Your task to perform on an android device: toggle translation in the chrome app Image 0: 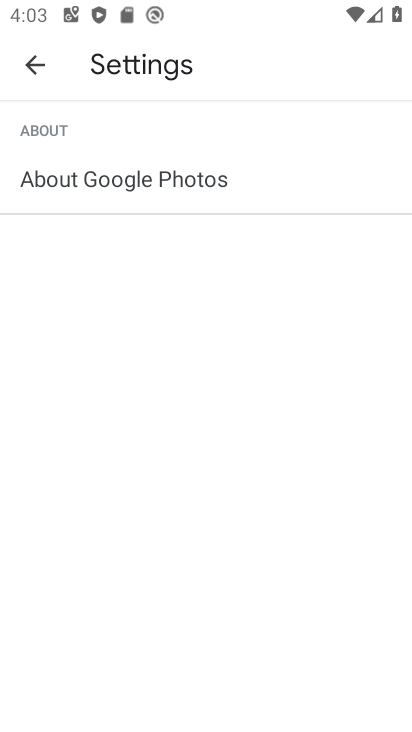
Step 0: press home button
Your task to perform on an android device: toggle translation in the chrome app Image 1: 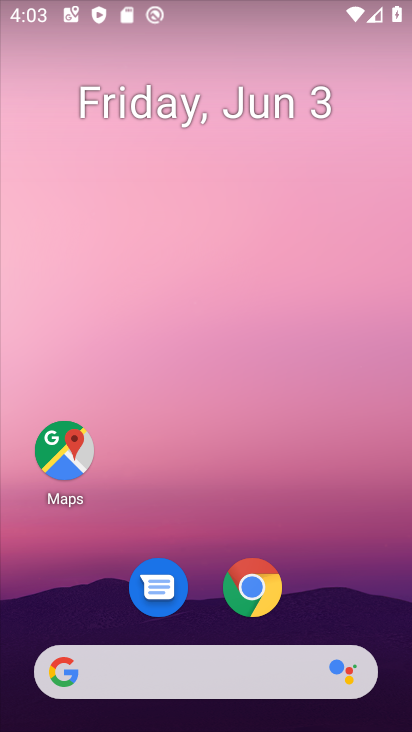
Step 1: click (250, 573)
Your task to perform on an android device: toggle translation in the chrome app Image 2: 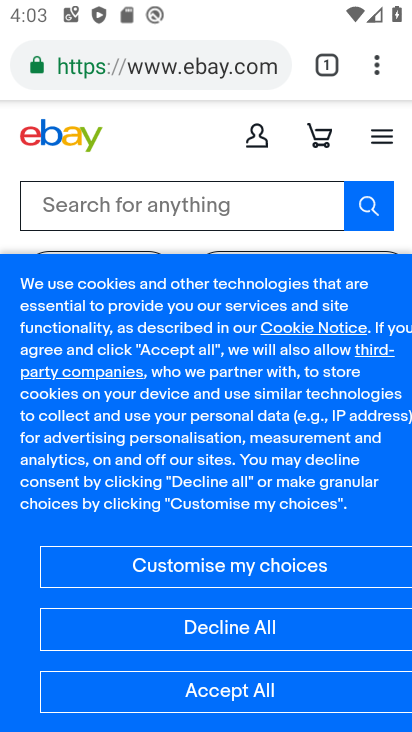
Step 2: click (385, 75)
Your task to perform on an android device: toggle translation in the chrome app Image 3: 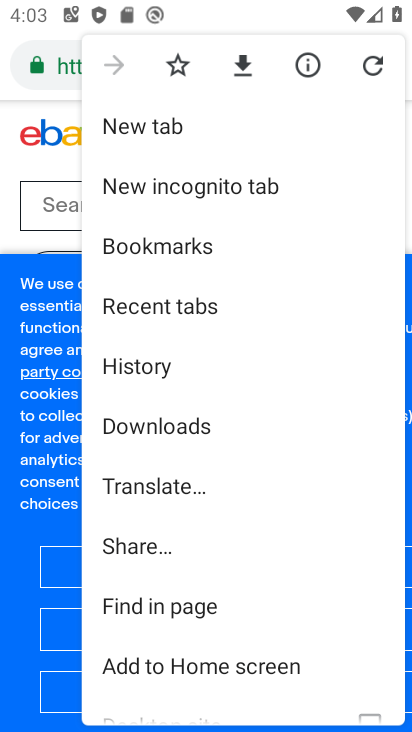
Step 3: drag from (242, 584) to (294, 190)
Your task to perform on an android device: toggle translation in the chrome app Image 4: 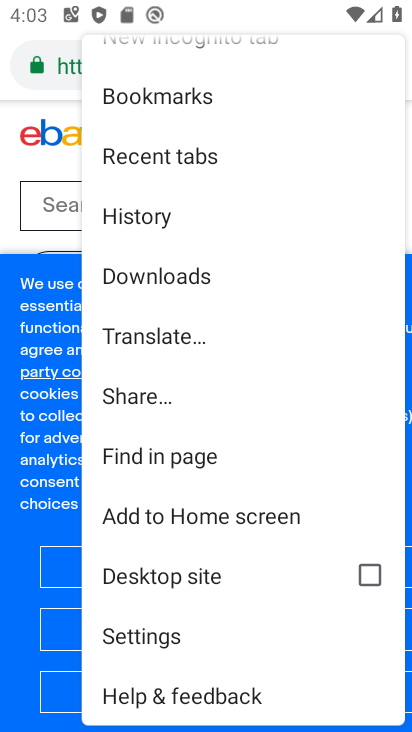
Step 4: click (173, 625)
Your task to perform on an android device: toggle translation in the chrome app Image 5: 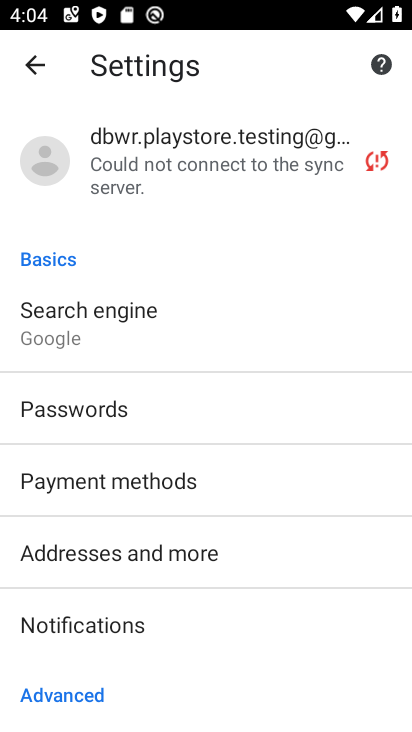
Step 5: drag from (193, 614) to (259, 385)
Your task to perform on an android device: toggle translation in the chrome app Image 6: 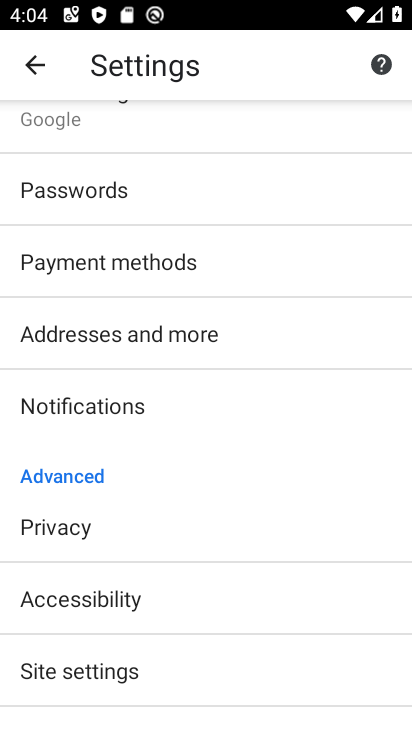
Step 6: drag from (229, 544) to (240, 443)
Your task to perform on an android device: toggle translation in the chrome app Image 7: 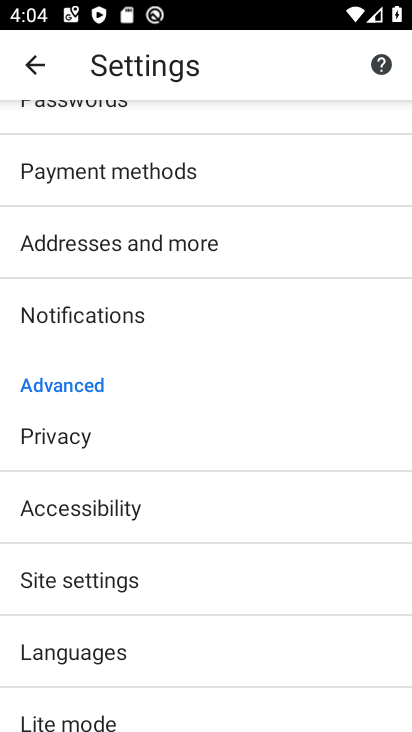
Step 7: click (164, 632)
Your task to perform on an android device: toggle translation in the chrome app Image 8: 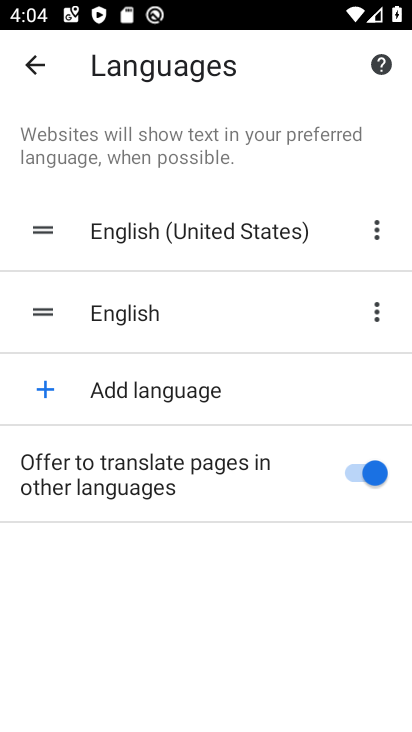
Step 8: task complete